Your task to perform on an android device: Turn on the flashlight Image 0: 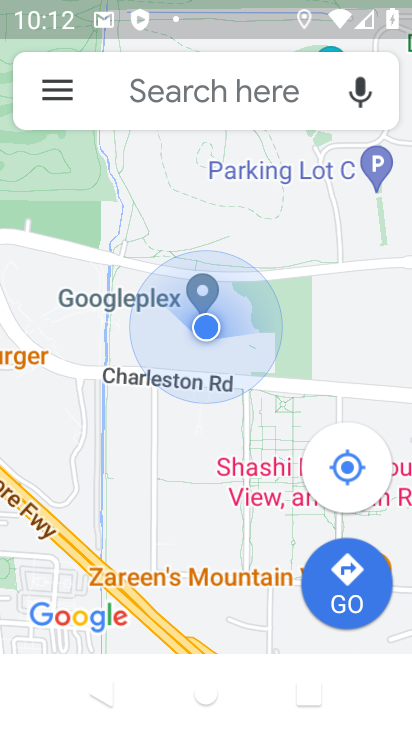
Step 0: press home button
Your task to perform on an android device: Turn on the flashlight Image 1: 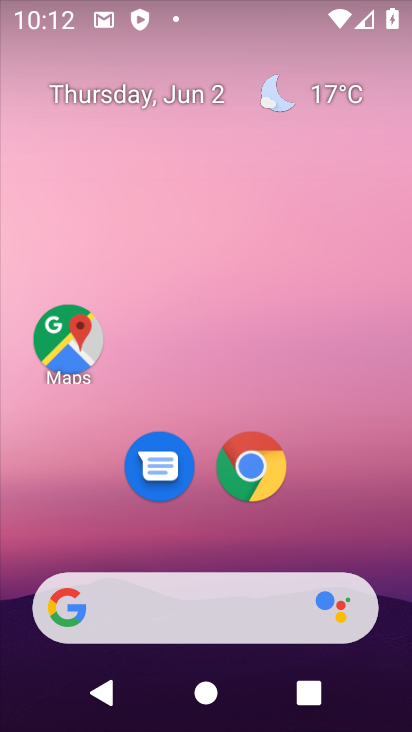
Step 1: task complete